Your task to perform on an android device: manage bookmarks in the chrome app Image 0: 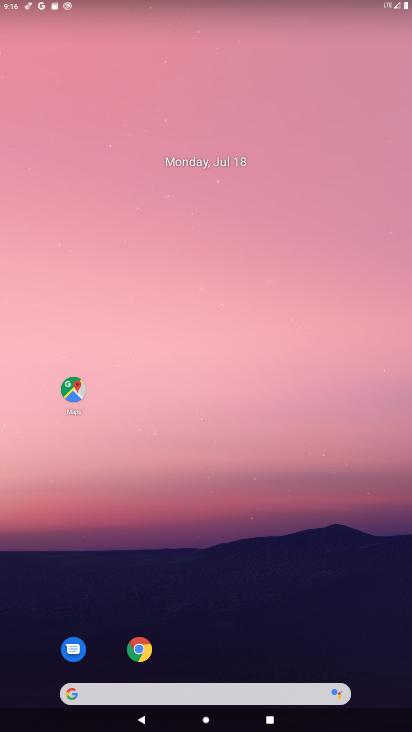
Step 0: drag from (192, 681) to (215, 192)
Your task to perform on an android device: manage bookmarks in the chrome app Image 1: 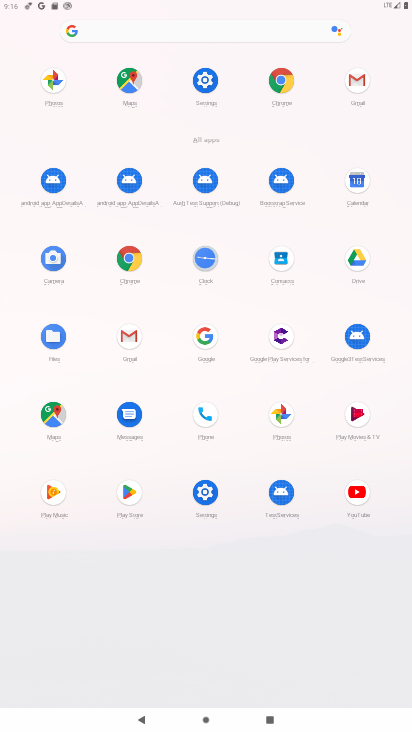
Step 1: click (281, 84)
Your task to perform on an android device: manage bookmarks in the chrome app Image 2: 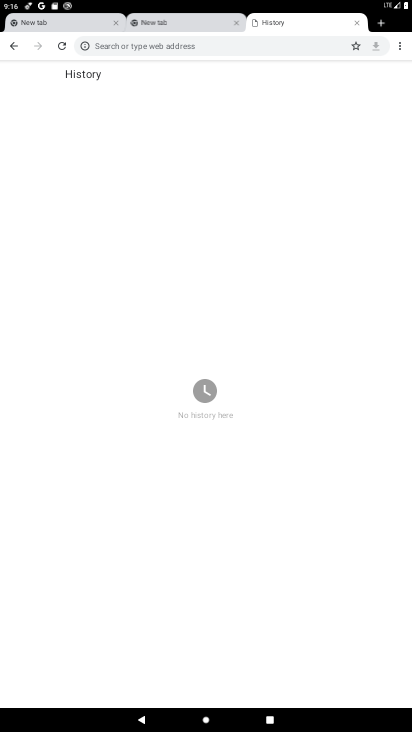
Step 2: click (405, 48)
Your task to perform on an android device: manage bookmarks in the chrome app Image 3: 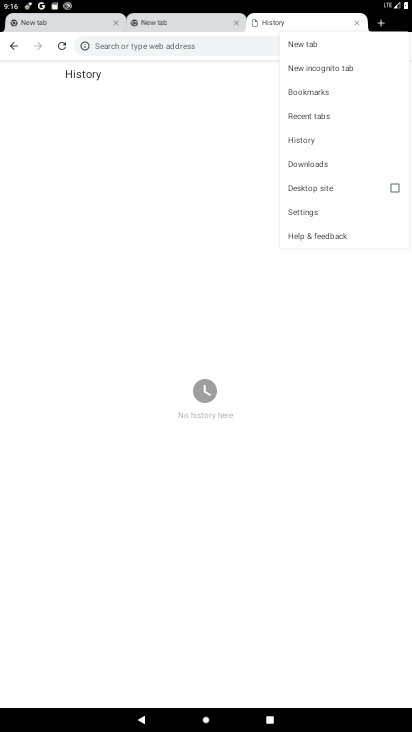
Step 3: click (302, 92)
Your task to perform on an android device: manage bookmarks in the chrome app Image 4: 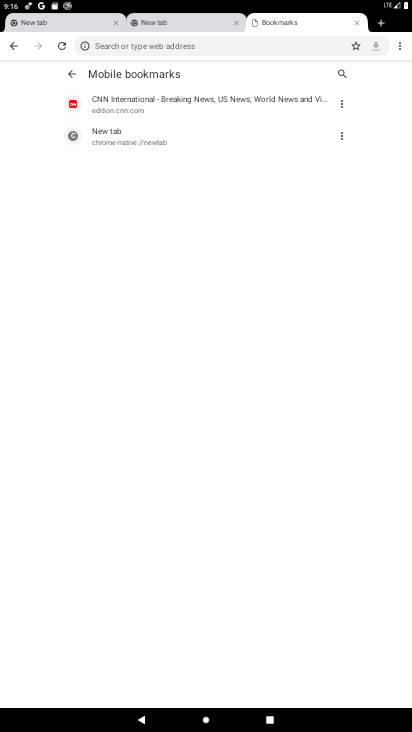
Step 4: task complete